Your task to perform on an android device: set default search engine in the chrome app Image 0: 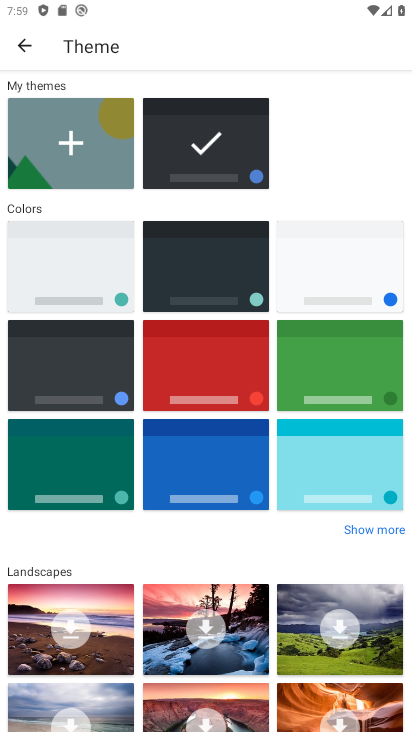
Step 0: press back button
Your task to perform on an android device: set default search engine in the chrome app Image 1: 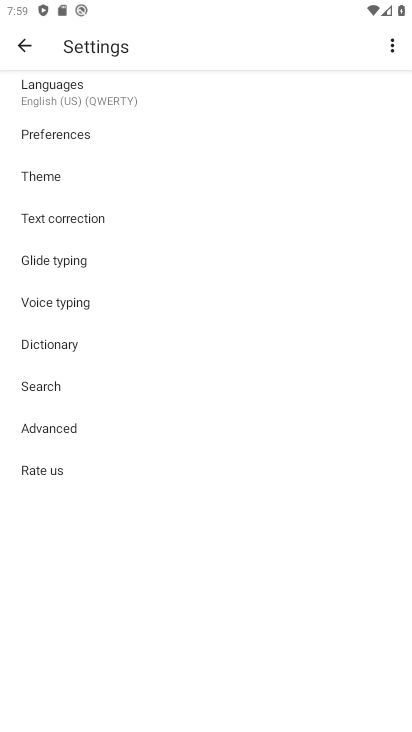
Step 1: press back button
Your task to perform on an android device: set default search engine in the chrome app Image 2: 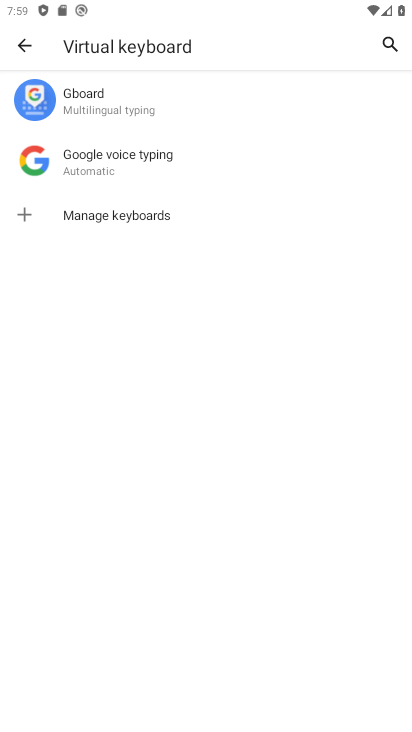
Step 2: press back button
Your task to perform on an android device: set default search engine in the chrome app Image 3: 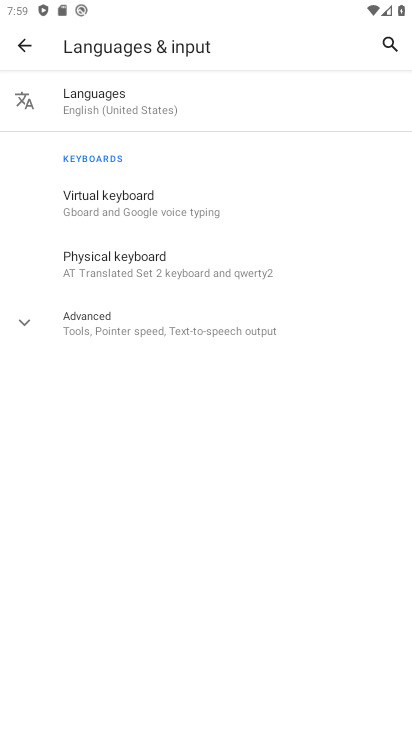
Step 3: press home button
Your task to perform on an android device: set default search engine in the chrome app Image 4: 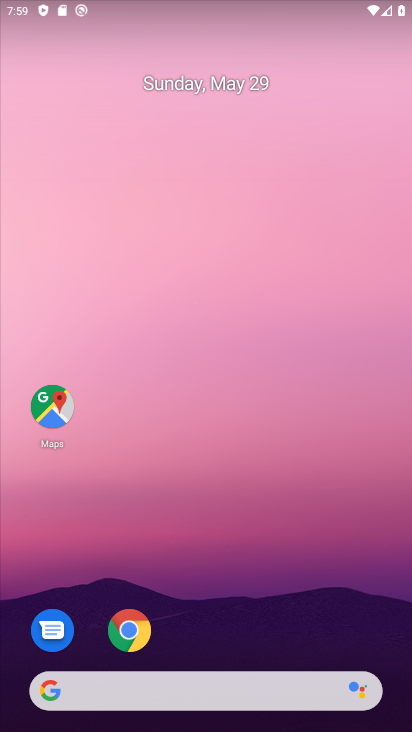
Step 4: click (117, 630)
Your task to perform on an android device: set default search engine in the chrome app Image 5: 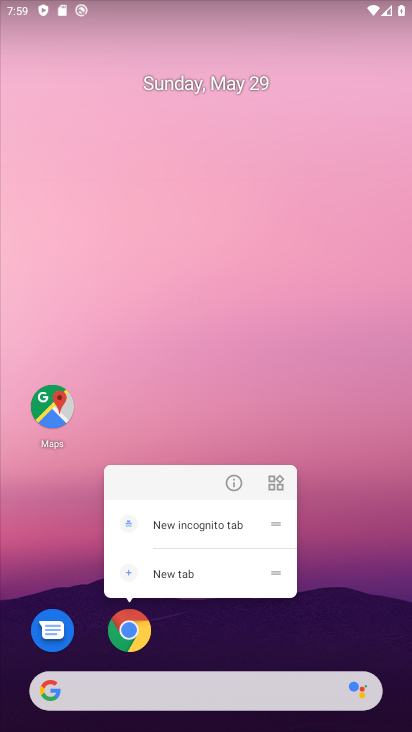
Step 5: click (131, 629)
Your task to perform on an android device: set default search engine in the chrome app Image 6: 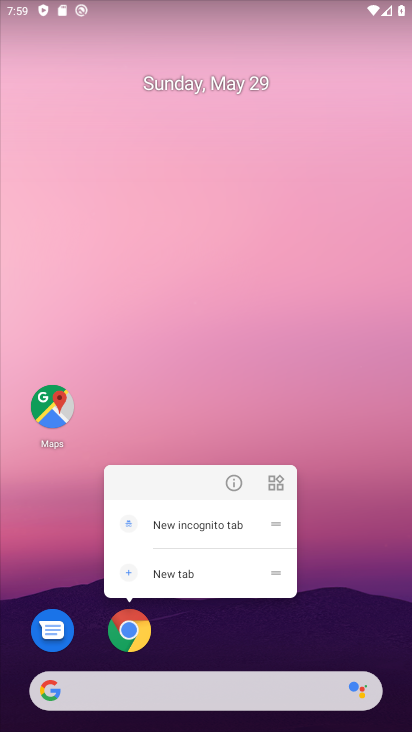
Step 6: click (129, 633)
Your task to perform on an android device: set default search engine in the chrome app Image 7: 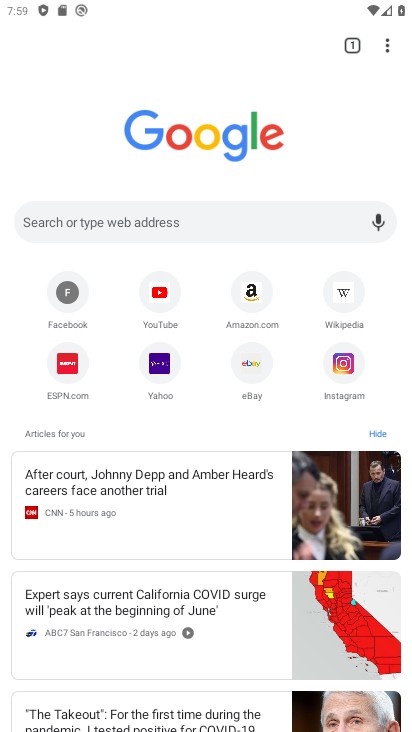
Step 7: click (387, 55)
Your task to perform on an android device: set default search engine in the chrome app Image 8: 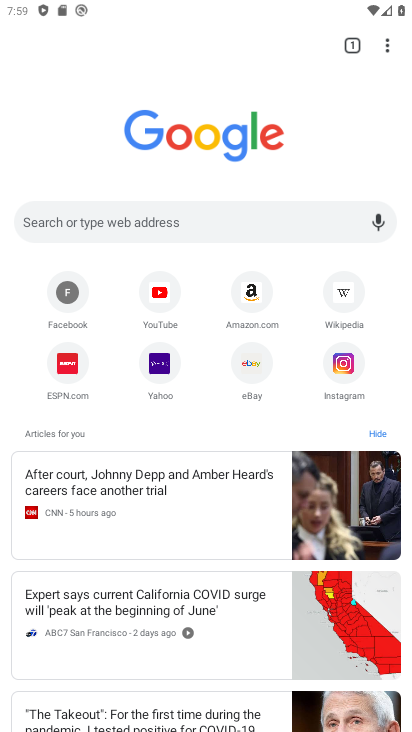
Step 8: drag from (389, 52) to (220, 369)
Your task to perform on an android device: set default search engine in the chrome app Image 9: 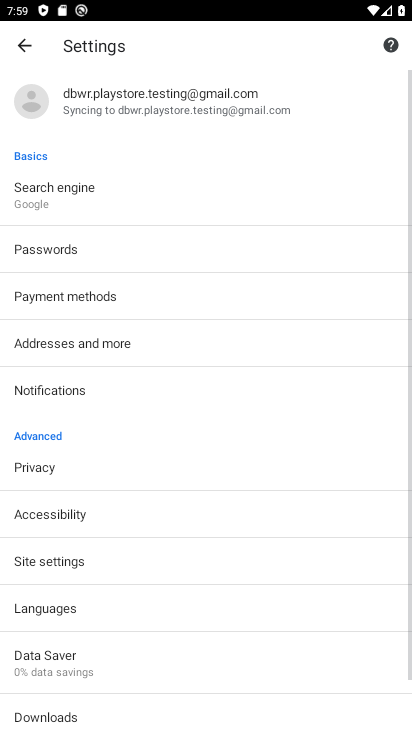
Step 9: click (34, 184)
Your task to perform on an android device: set default search engine in the chrome app Image 10: 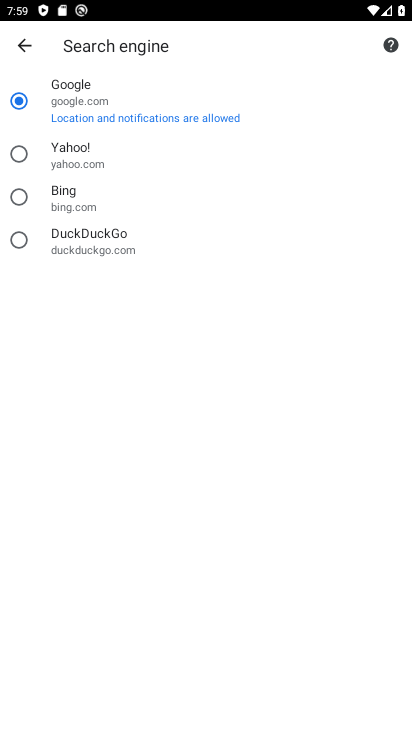
Step 10: task complete